Your task to perform on an android device: Open calendar and show me the second week of next month Image 0: 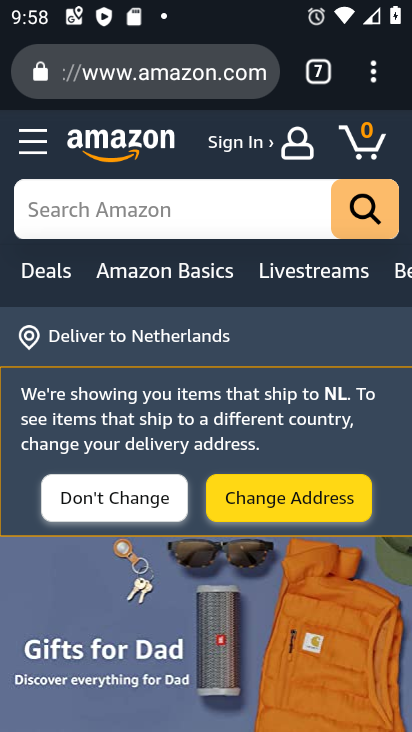
Step 0: press home button
Your task to perform on an android device: Open calendar and show me the second week of next month Image 1: 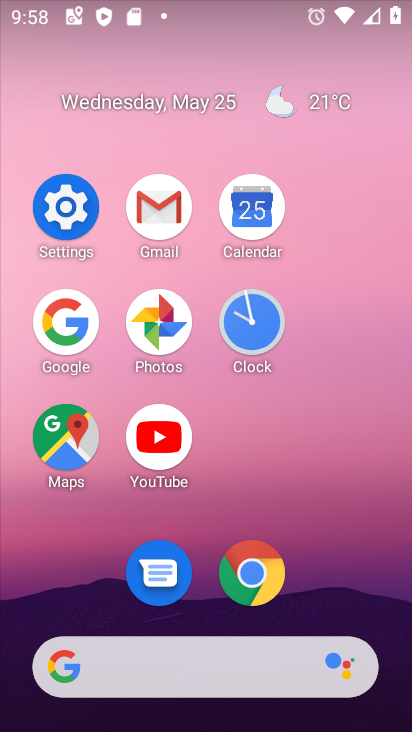
Step 1: click (277, 221)
Your task to perform on an android device: Open calendar and show me the second week of next month Image 2: 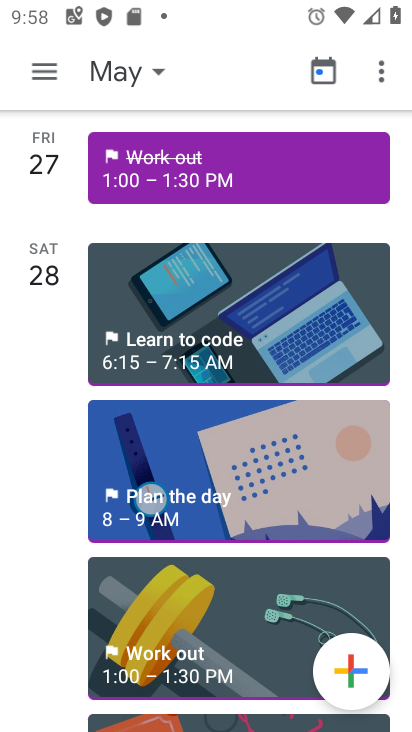
Step 2: click (122, 84)
Your task to perform on an android device: Open calendar and show me the second week of next month Image 3: 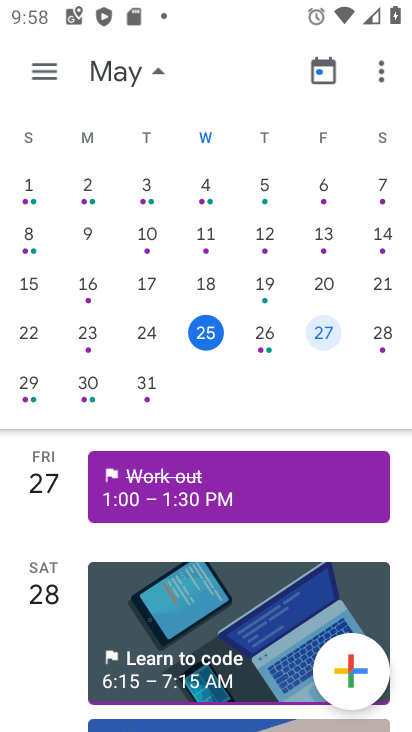
Step 3: drag from (352, 262) to (8, 268)
Your task to perform on an android device: Open calendar and show me the second week of next month Image 4: 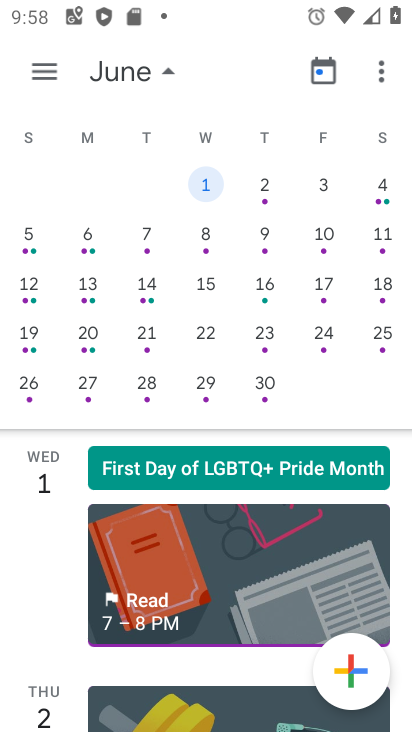
Step 4: click (47, 82)
Your task to perform on an android device: Open calendar and show me the second week of next month Image 5: 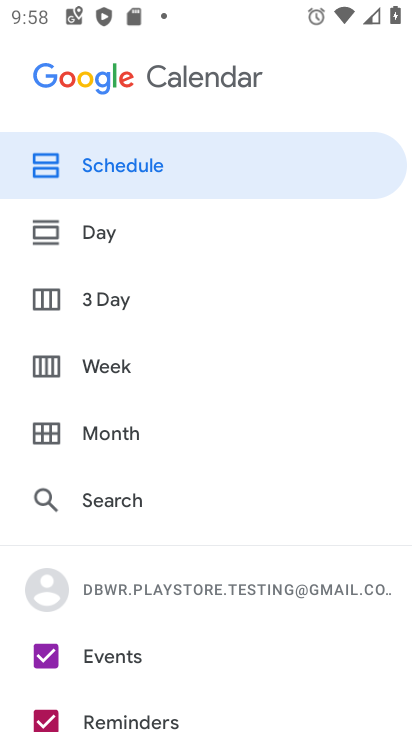
Step 5: click (185, 357)
Your task to perform on an android device: Open calendar and show me the second week of next month Image 6: 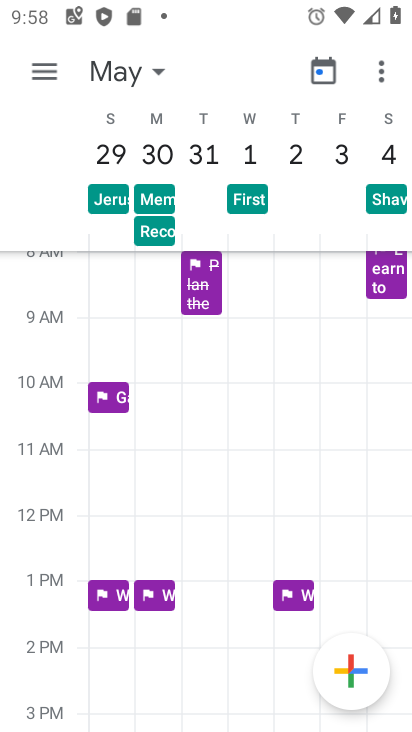
Step 6: task complete